Your task to perform on an android device: Is it going to rain today? Image 0: 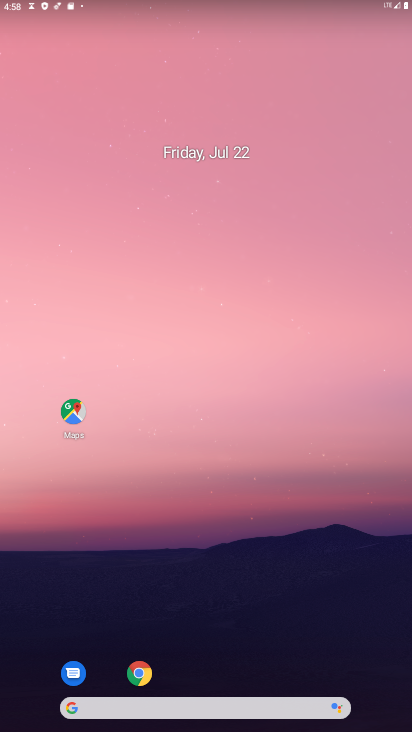
Step 0: click (73, 714)
Your task to perform on an android device: Is it going to rain today? Image 1: 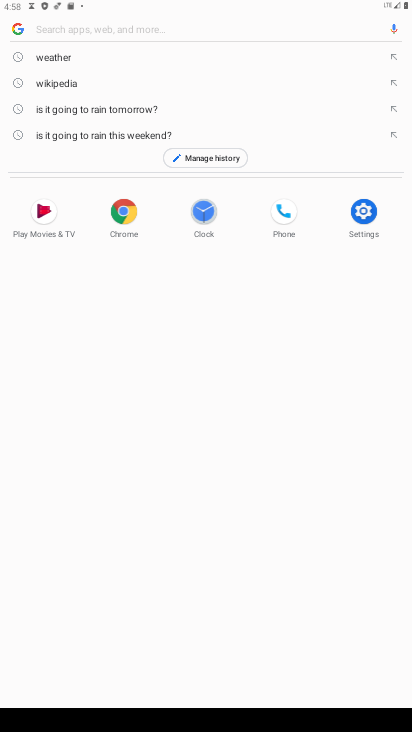
Step 1: type "rain today?"
Your task to perform on an android device: Is it going to rain today? Image 2: 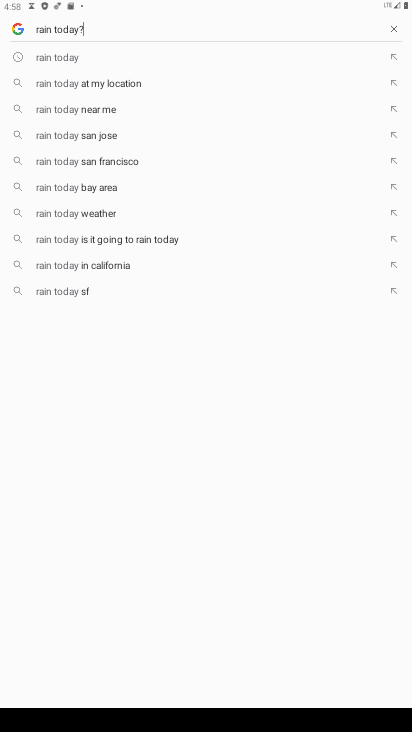
Step 2: press enter
Your task to perform on an android device: Is it going to rain today? Image 3: 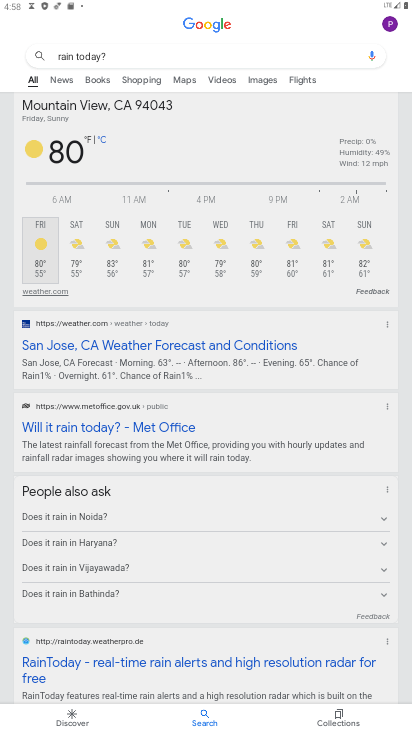
Step 3: task complete